Your task to perform on an android device: Open Chrome and go to settings Image 0: 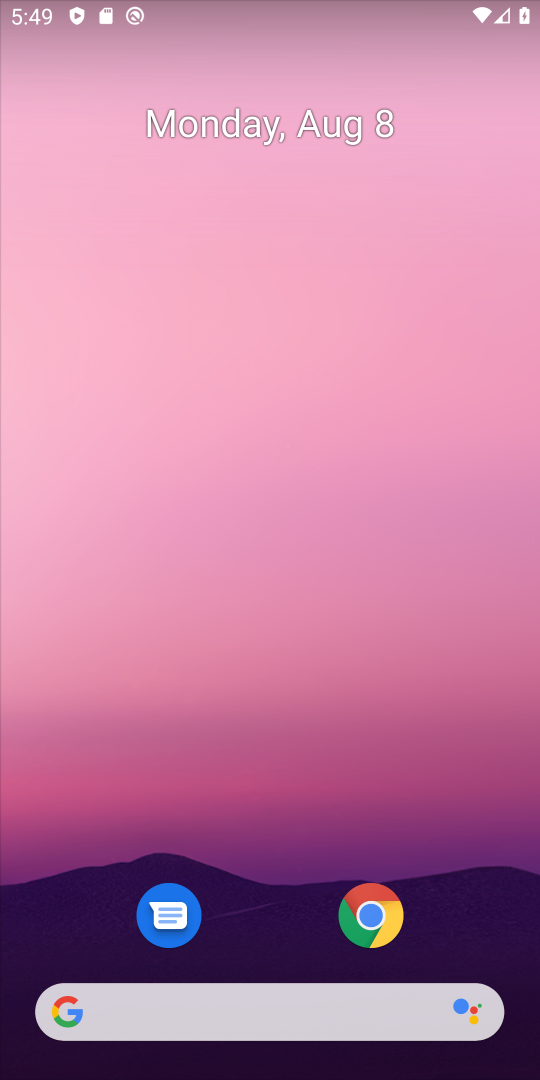
Step 0: click (374, 916)
Your task to perform on an android device: Open Chrome and go to settings Image 1: 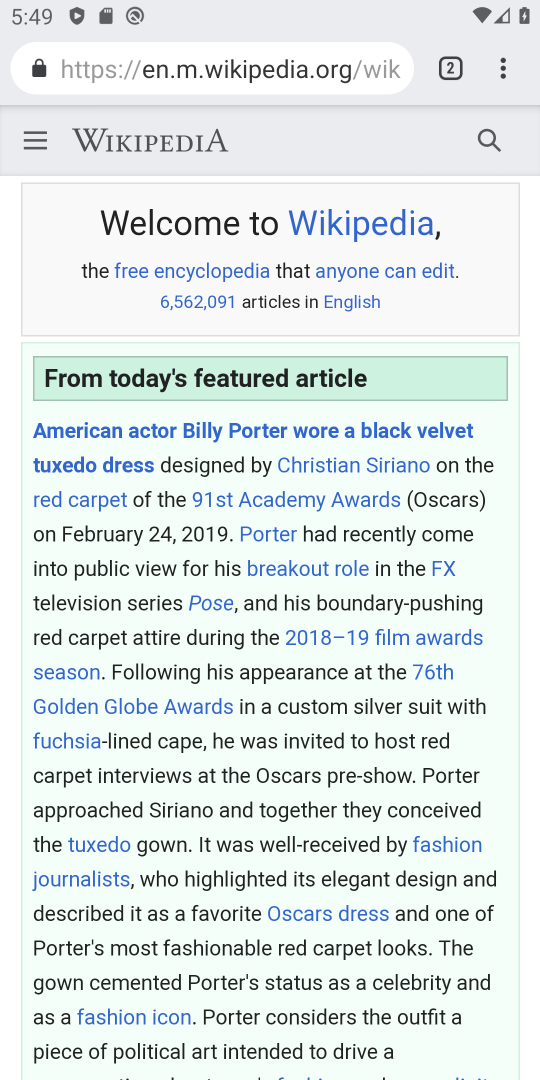
Step 1: click (507, 69)
Your task to perform on an android device: Open Chrome and go to settings Image 2: 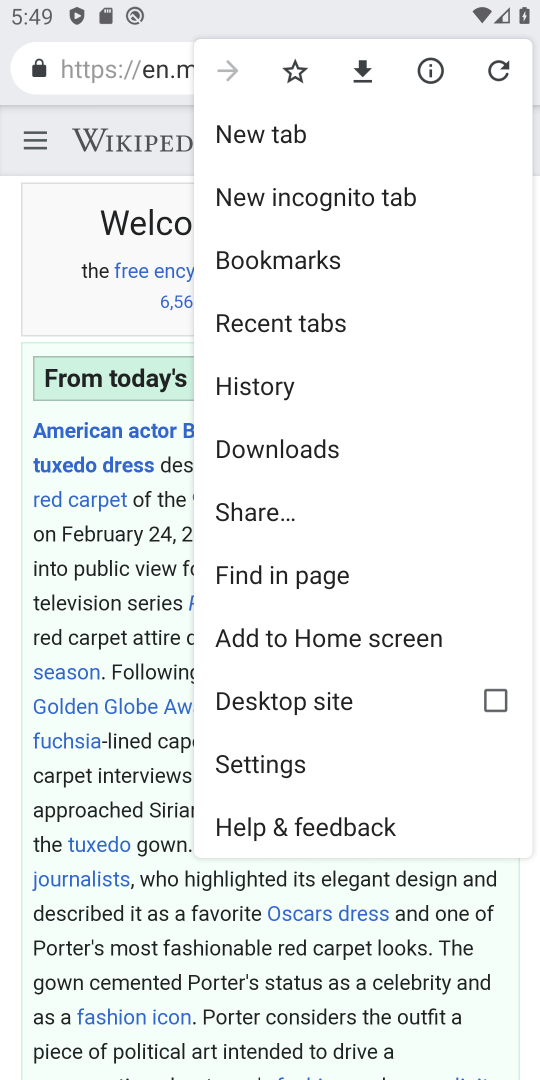
Step 2: click (265, 767)
Your task to perform on an android device: Open Chrome and go to settings Image 3: 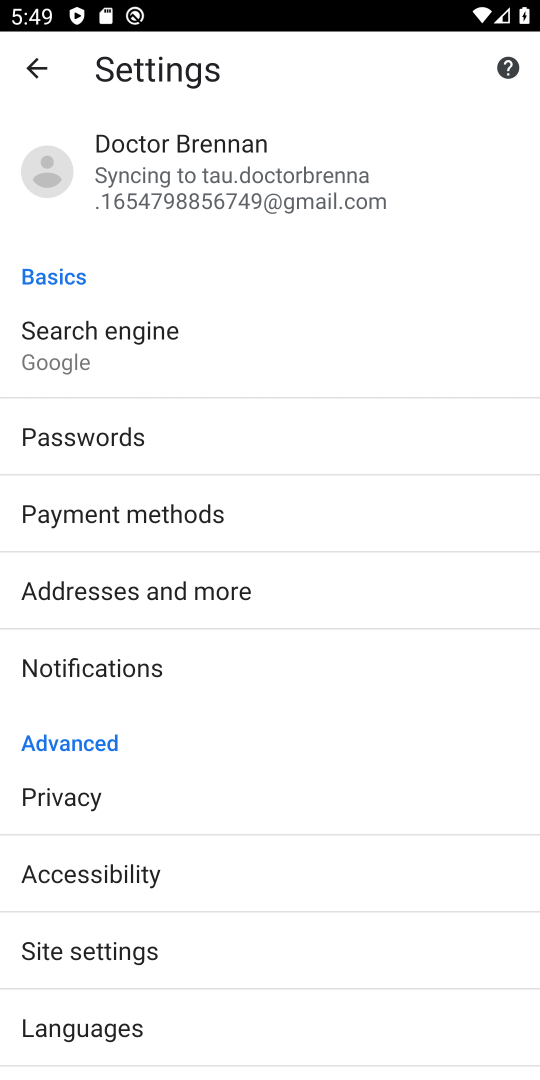
Step 3: task complete